Your task to perform on an android device: add a contact Image 0: 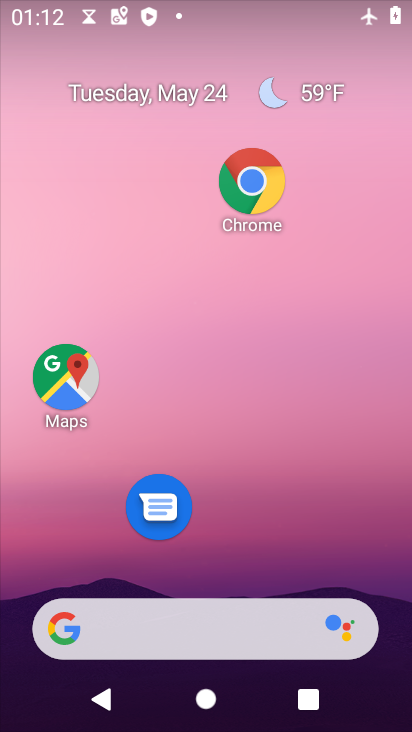
Step 0: drag from (312, 492) to (322, 222)
Your task to perform on an android device: add a contact Image 1: 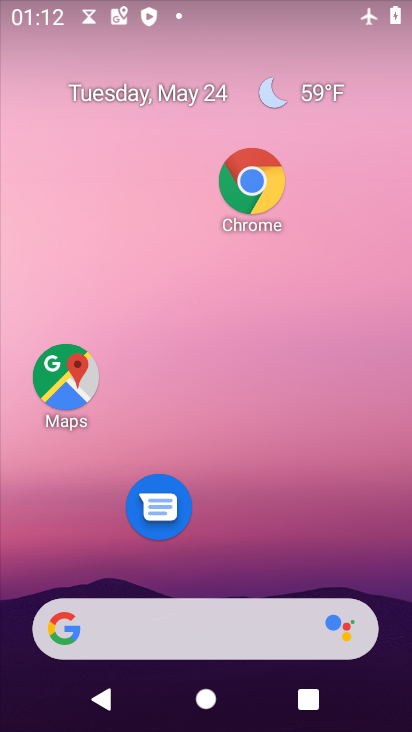
Step 1: drag from (280, 541) to (286, 210)
Your task to perform on an android device: add a contact Image 2: 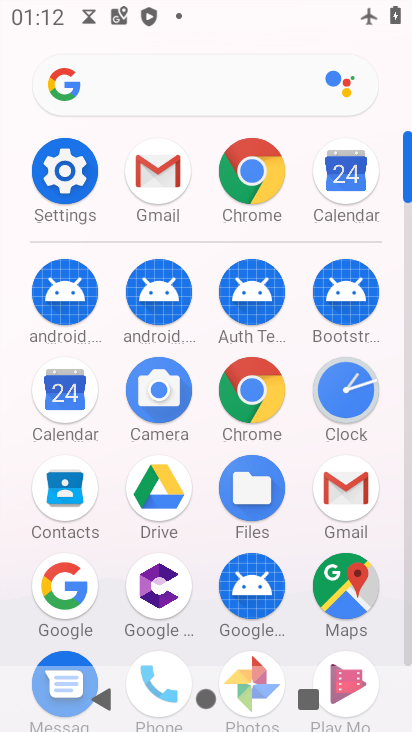
Step 2: drag from (165, 615) to (199, 316)
Your task to perform on an android device: add a contact Image 3: 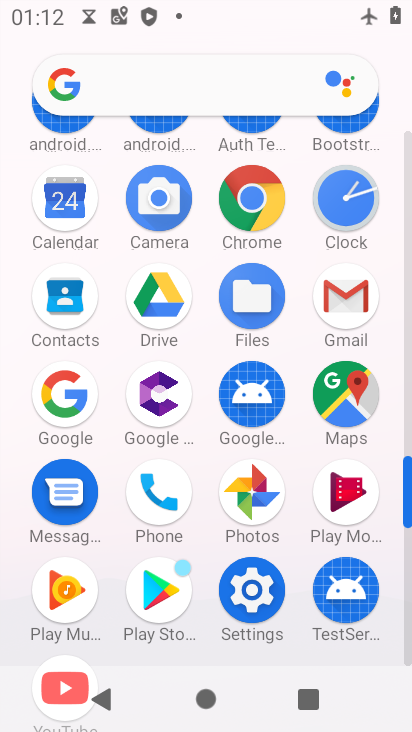
Step 3: click (144, 488)
Your task to perform on an android device: add a contact Image 4: 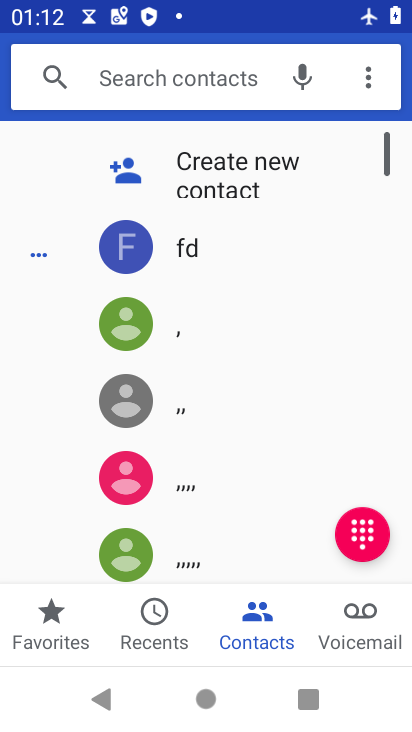
Step 4: click (260, 167)
Your task to perform on an android device: add a contact Image 5: 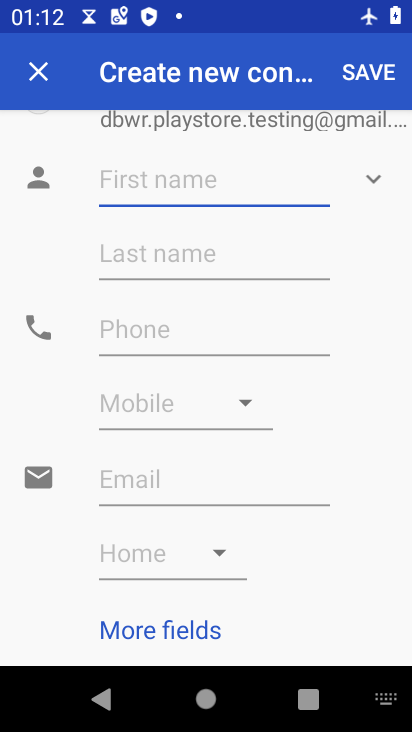
Step 5: type "gfgfgfgf"
Your task to perform on an android device: add a contact Image 6: 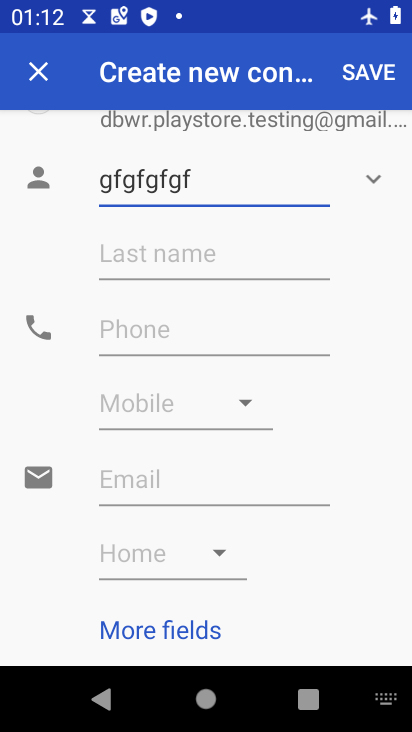
Step 6: click (152, 328)
Your task to perform on an android device: add a contact Image 7: 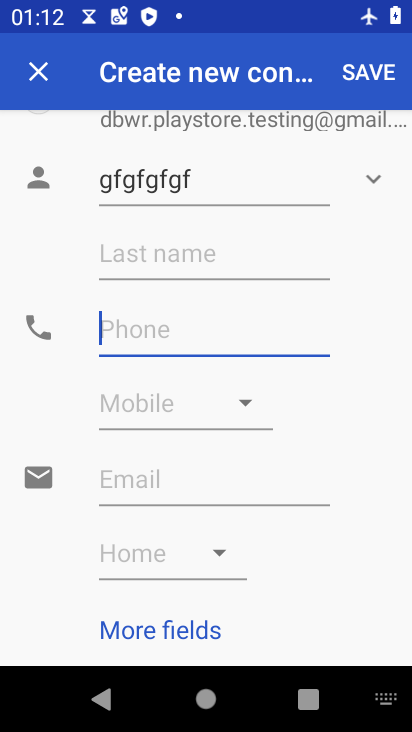
Step 7: type "7890-345"
Your task to perform on an android device: add a contact Image 8: 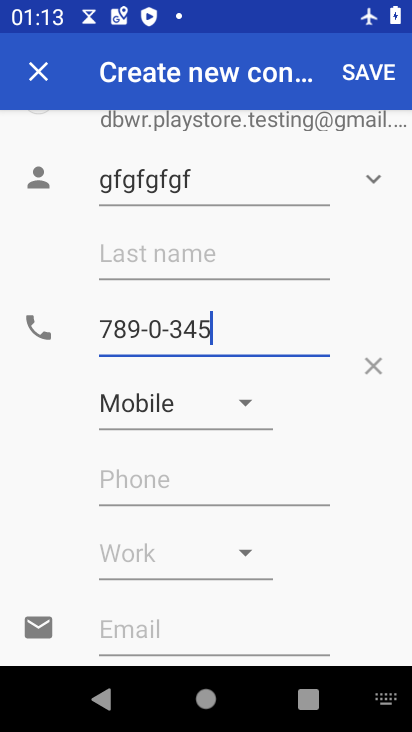
Step 8: click (376, 55)
Your task to perform on an android device: add a contact Image 9: 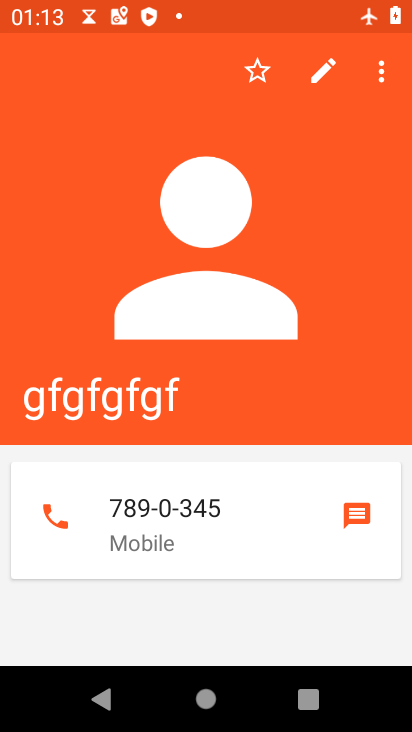
Step 9: task complete